Your task to perform on an android device: Open Google Image 0: 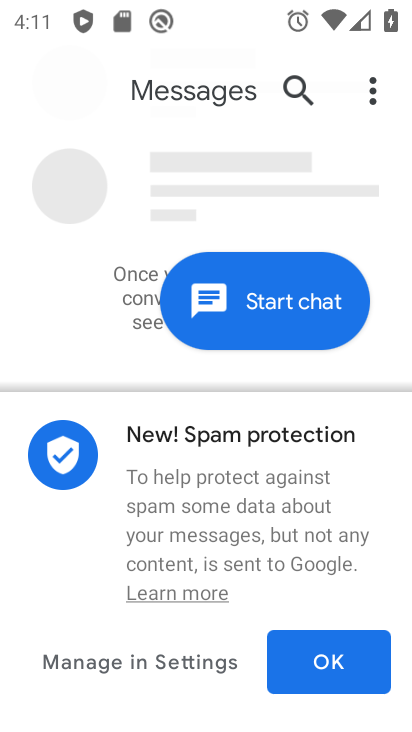
Step 0: press back button
Your task to perform on an android device: Open Google Image 1: 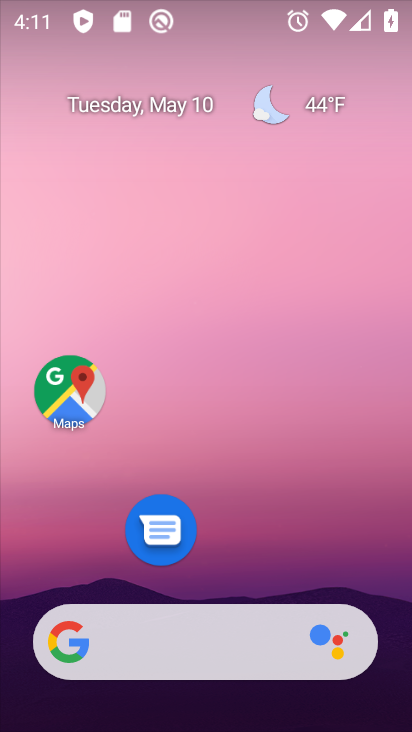
Step 1: drag from (253, 585) to (357, 83)
Your task to perform on an android device: Open Google Image 2: 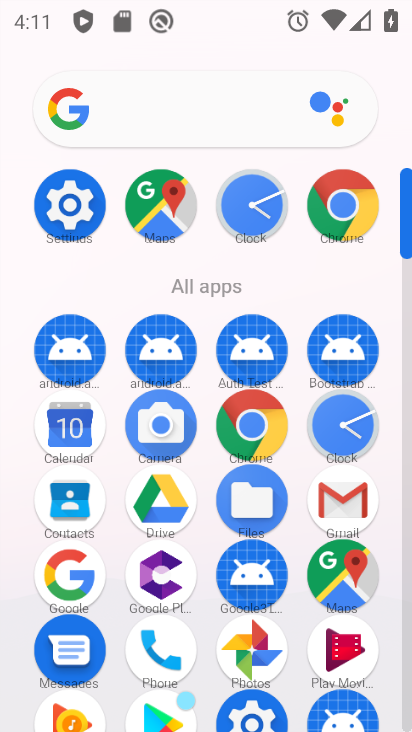
Step 2: click (79, 564)
Your task to perform on an android device: Open Google Image 3: 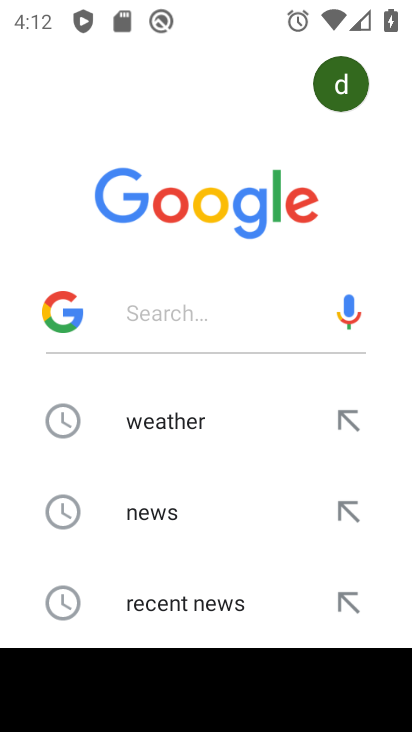
Step 3: task complete